Your task to perform on an android device: Open calendar and show me the third week of next month Image 0: 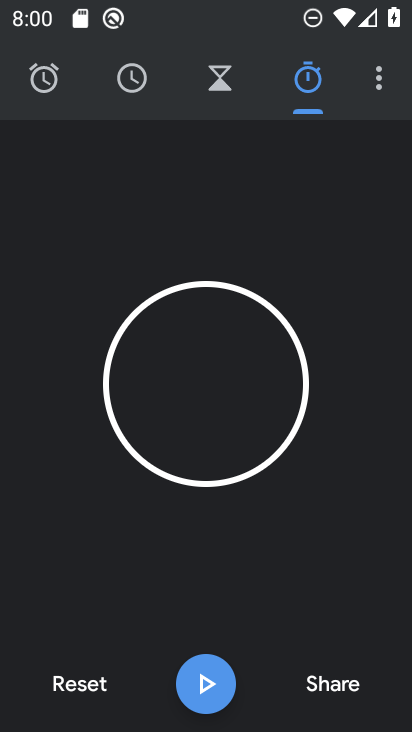
Step 0: press home button
Your task to perform on an android device: Open calendar and show me the third week of next month Image 1: 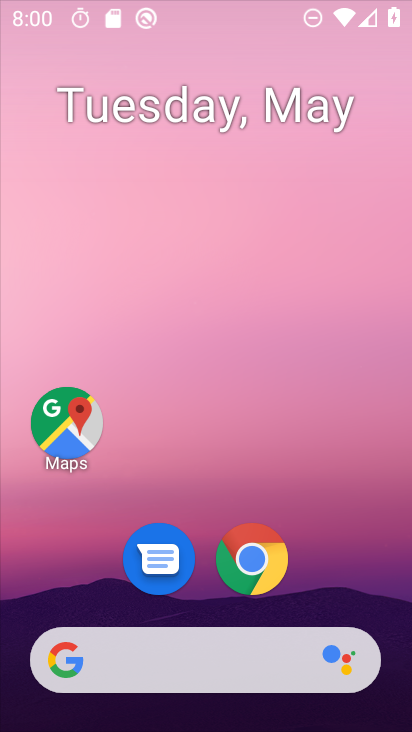
Step 1: drag from (392, 666) to (320, 125)
Your task to perform on an android device: Open calendar and show me the third week of next month Image 2: 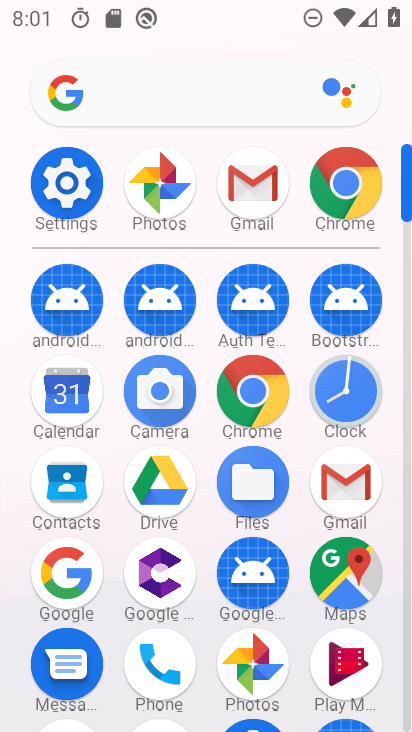
Step 2: click (59, 423)
Your task to perform on an android device: Open calendar and show me the third week of next month Image 3: 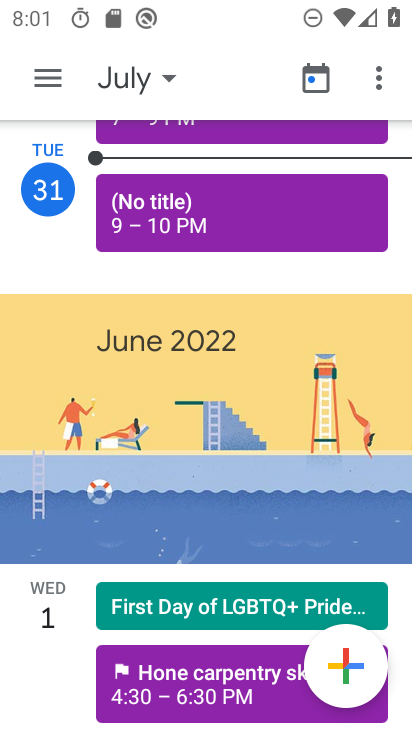
Step 3: click (109, 77)
Your task to perform on an android device: Open calendar and show me the third week of next month Image 4: 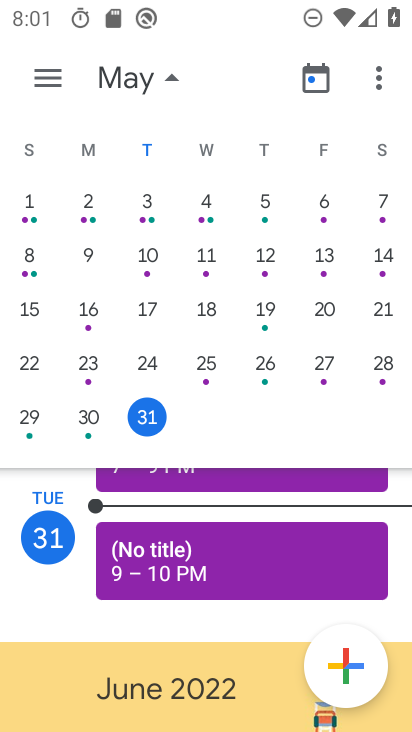
Step 4: drag from (388, 312) to (70, 335)
Your task to perform on an android device: Open calendar and show me the third week of next month Image 5: 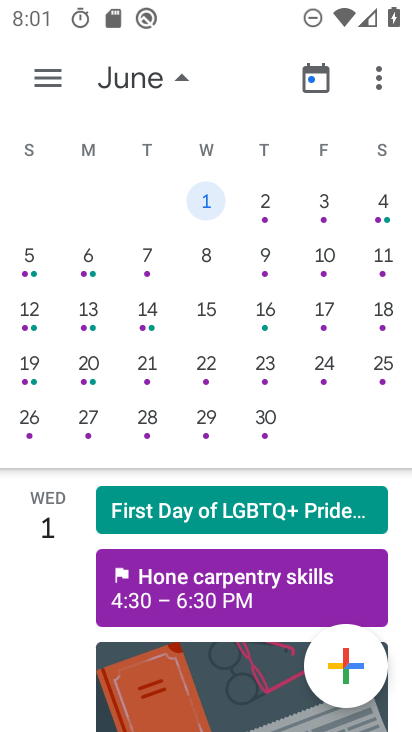
Step 5: click (82, 374)
Your task to perform on an android device: Open calendar and show me the third week of next month Image 6: 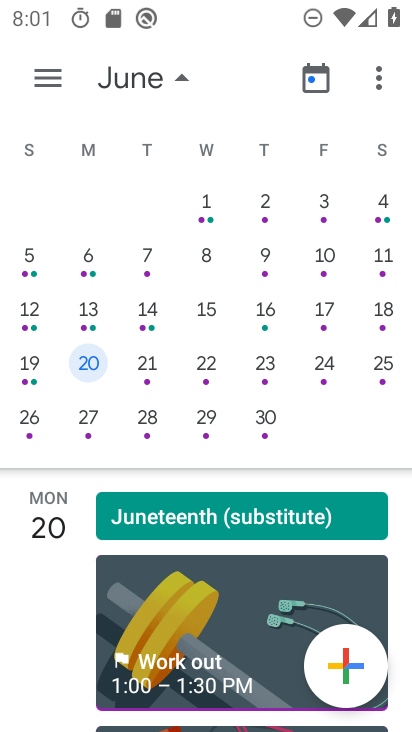
Step 6: task complete